Your task to perform on an android device: find which apps use the phone's location Image 0: 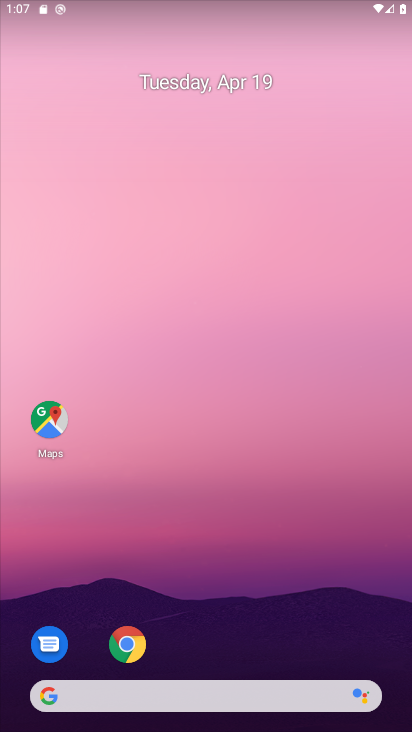
Step 0: drag from (212, 620) to (347, 184)
Your task to perform on an android device: find which apps use the phone's location Image 1: 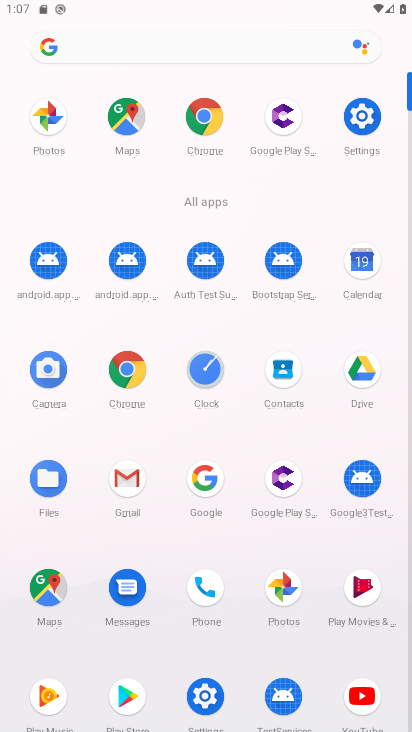
Step 1: click (366, 125)
Your task to perform on an android device: find which apps use the phone's location Image 2: 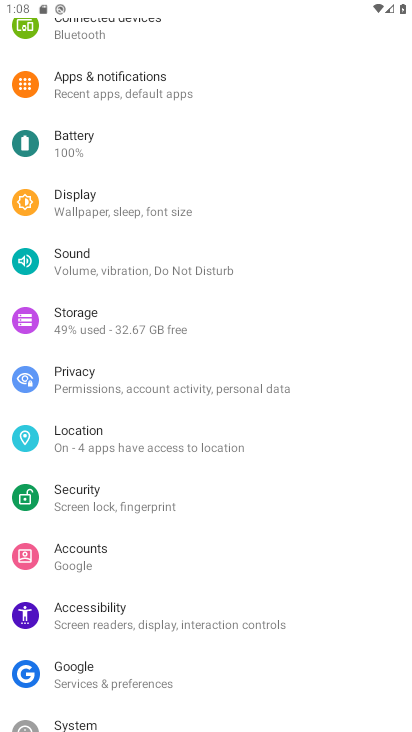
Step 2: click (113, 433)
Your task to perform on an android device: find which apps use the phone's location Image 3: 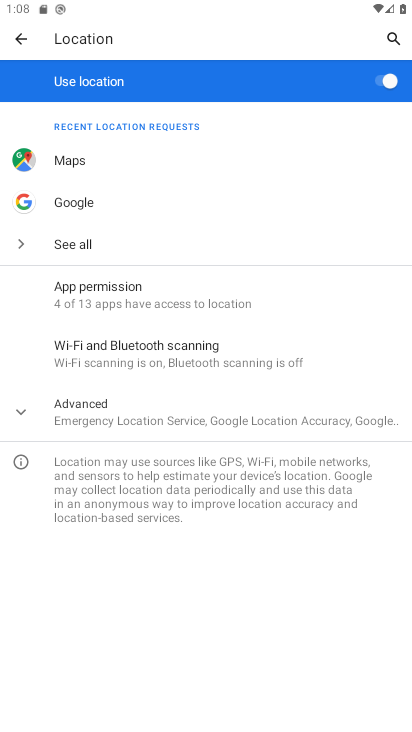
Step 3: click (121, 298)
Your task to perform on an android device: find which apps use the phone's location Image 4: 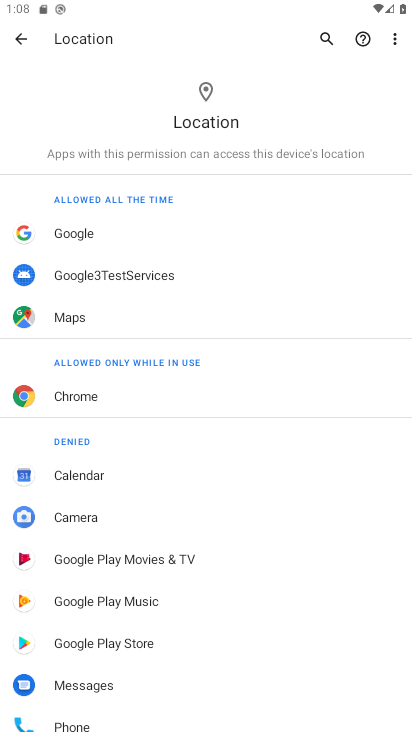
Step 4: task complete